Your task to perform on an android device: snooze an email in the gmail app Image 0: 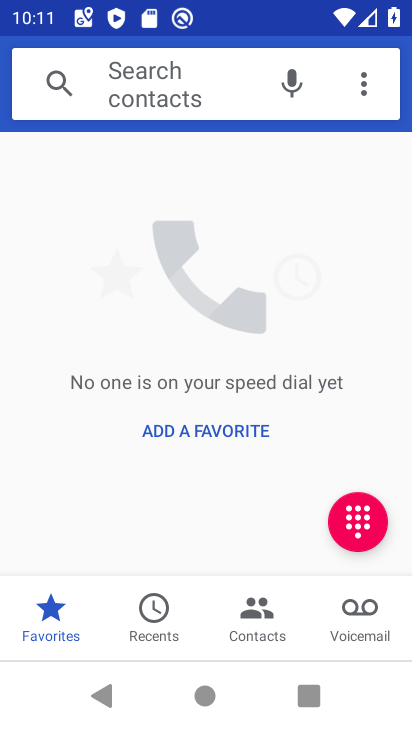
Step 0: press home button
Your task to perform on an android device: snooze an email in the gmail app Image 1: 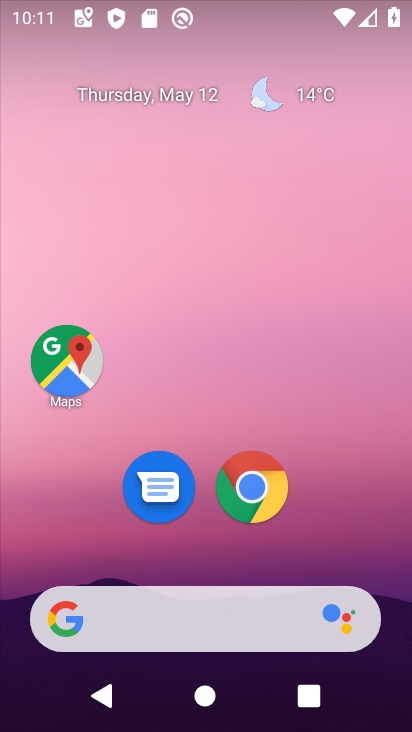
Step 1: drag from (37, 623) to (327, 134)
Your task to perform on an android device: snooze an email in the gmail app Image 2: 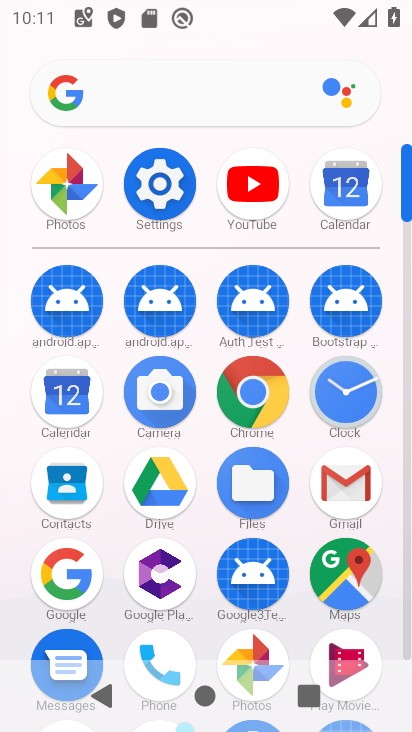
Step 2: click (357, 471)
Your task to perform on an android device: snooze an email in the gmail app Image 3: 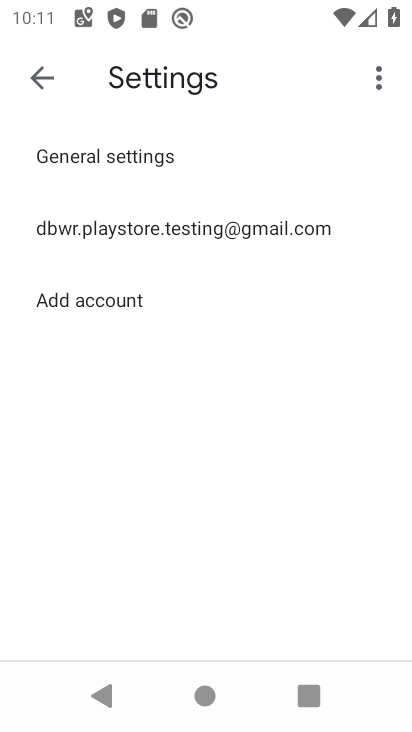
Step 3: click (118, 237)
Your task to perform on an android device: snooze an email in the gmail app Image 4: 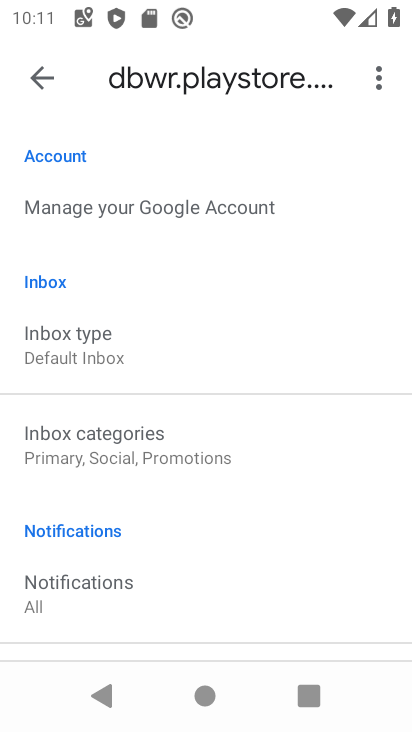
Step 4: click (35, 84)
Your task to perform on an android device: snooze an email in the gmail app Image 5: 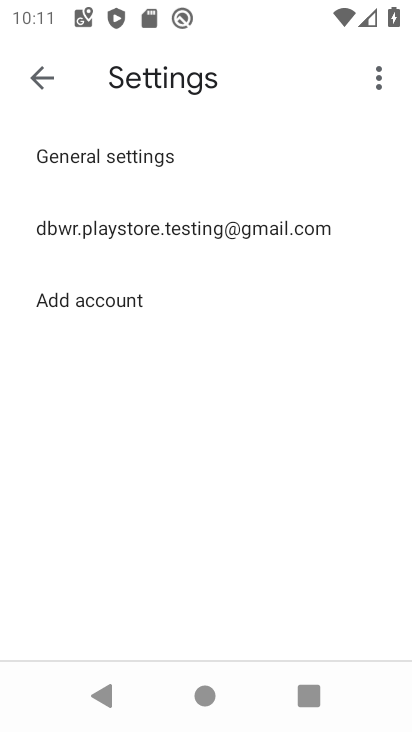
Step 5: click (35, 76)
Your task to perform on an android device: snooze an email in the gmail app Image 6: 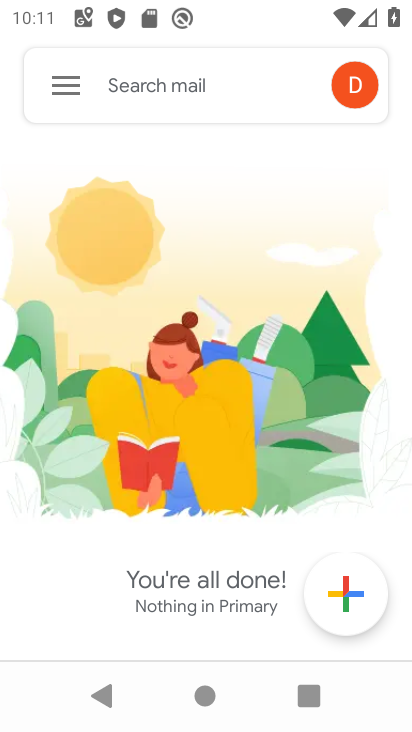
Step 6: click (59, 80)
Your task to perform on an android device: snooze an email in the gmail app Image 7: 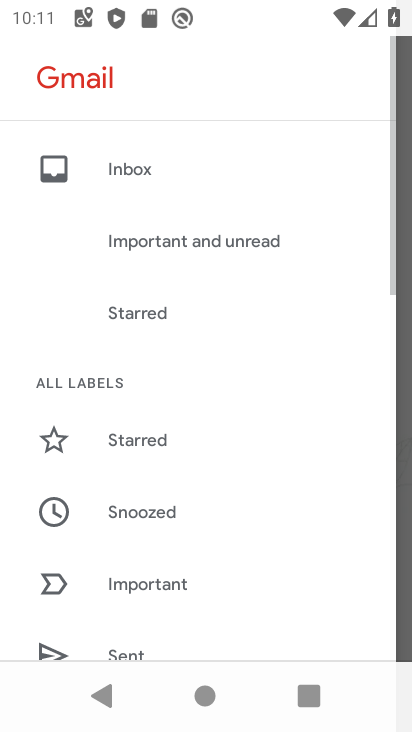
Step 7: drag from (135, 632) to (310, 102)
Your task to perform on an android device: snooze an email in the gmail app Image 8: 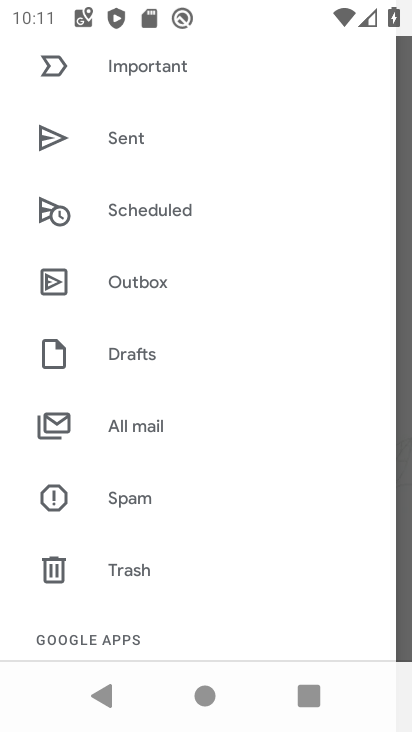
Step 8: drag from (161, 181) to (85, 633)
Your task to perform on an android device: snooze an email in the gmail app Image 9: 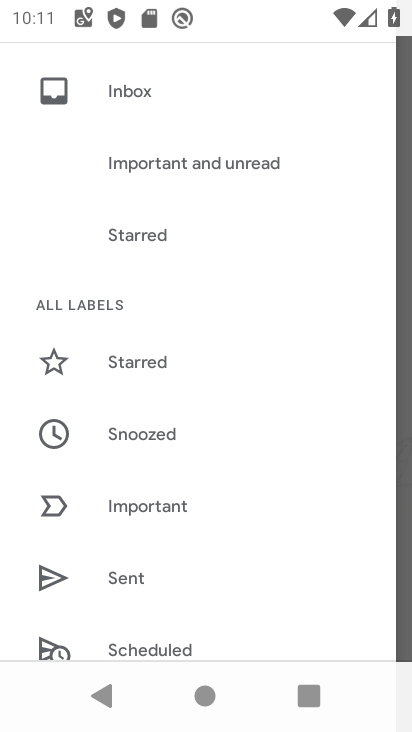
Step 9: click (150, 443)
Your task to perform on an android device: snooze an email in the gmail app Image 10: 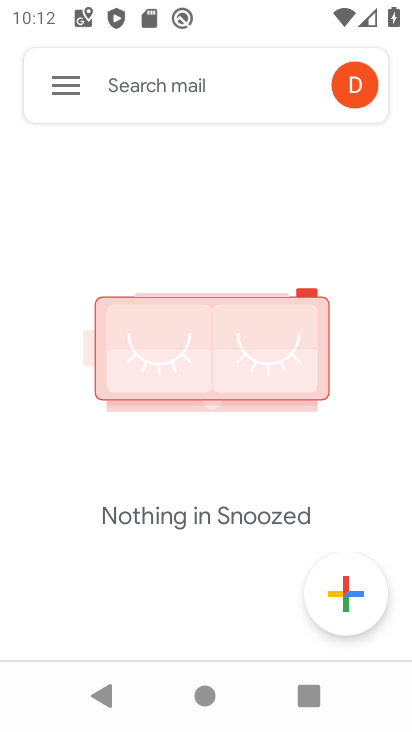
Step 10: task complete